Your task to perform on an android device: Search for pizza restaurants on Maps Image 0: 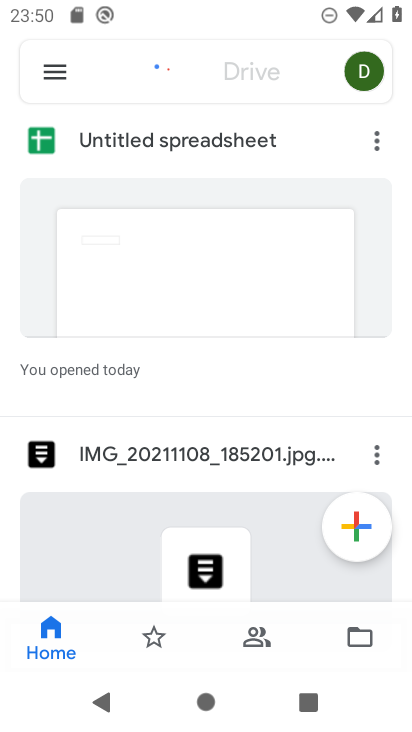
Step 0: press home button
Your task to perform on an android device: Search for pizza restaurants on Maps Image 1: 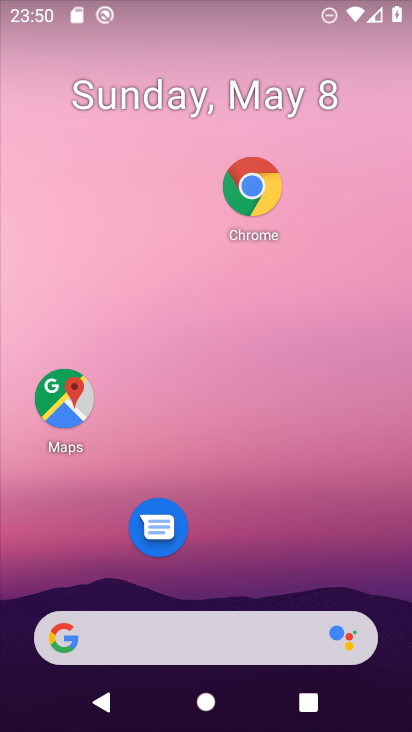
Step 1: drag from (310, 515) to (359, 125)
Your task to perform on an android device: Search for pizza restaurants on Maps Image 2: 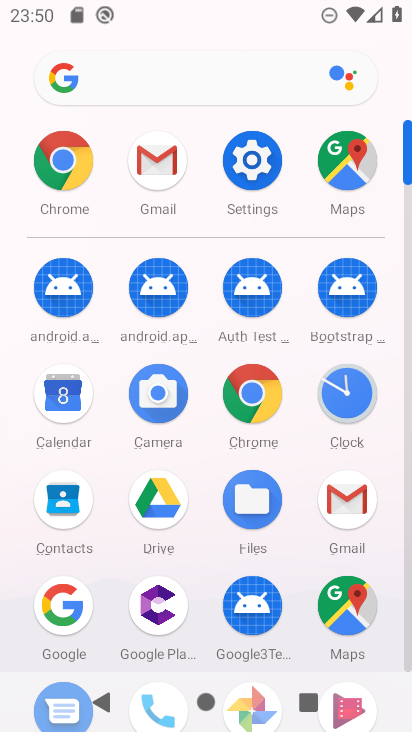
Step 2: click (353, 602)
Your task to perform on an android device: Search for pizza restaurants on Maps Image 3: 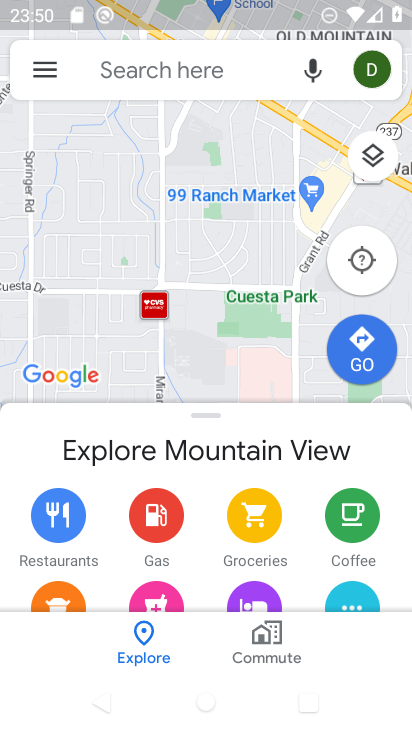
Step 3: click (197, 53)
Your task to perform on an android device: Search for pizza restaurants on Maps Image 4: 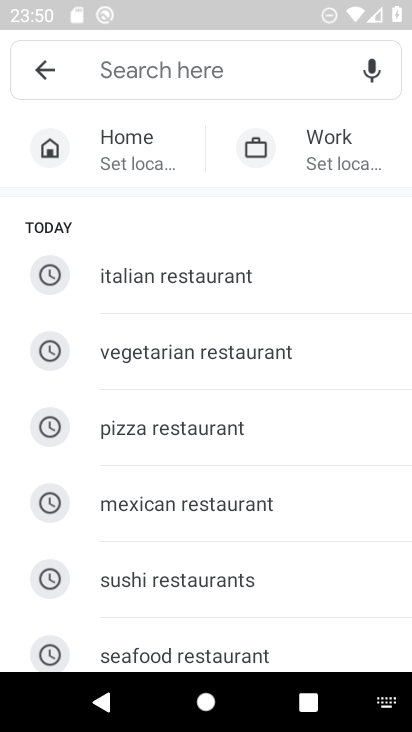
Step 4: type "pizza restaurants"
Your task to perform on an android device: Search for pizza restaurants on Maps Image 5: 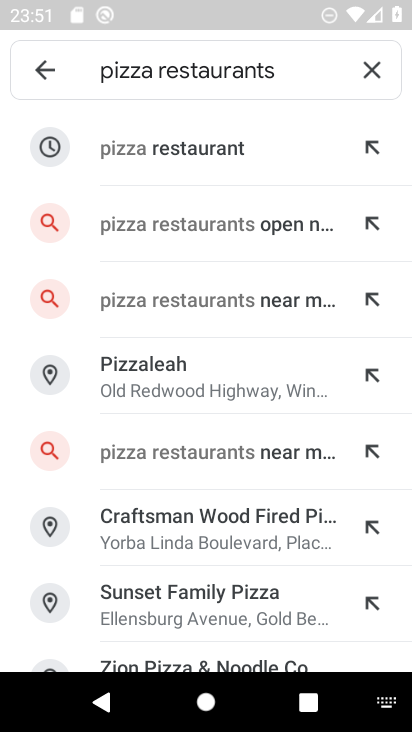
Step 5: click (229, 147)
Your task to perform on an android device: Search for pizza restaurants on Maps Image 6: 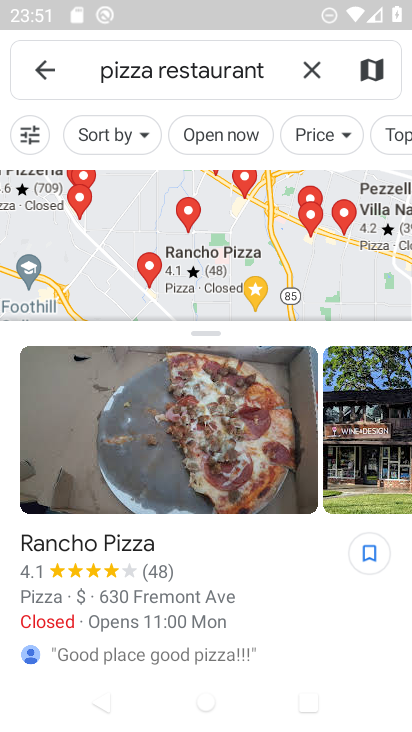
Step 6: task complete